Your task to perform on an android device: turn off sleep mode Image 0: 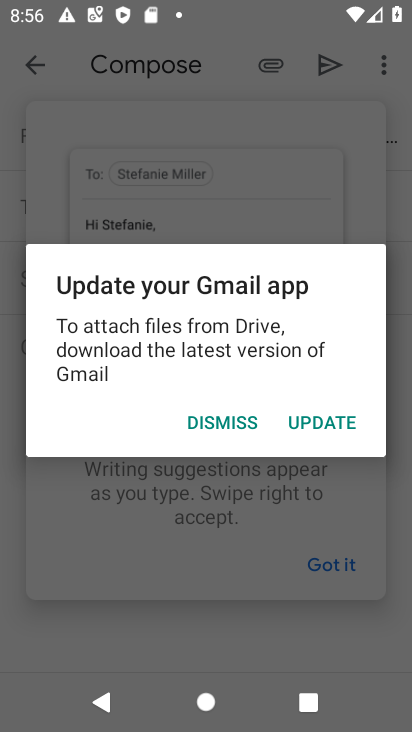
Step 0: press home button
Your task to perform on an android device: turn off sleep mode Image 1: 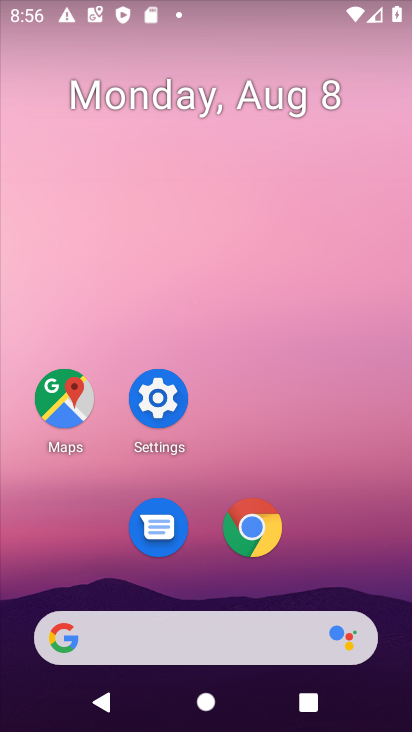
Step 1: drag from (289, 407) to (286, 239)
Your task to perform on an android device: turn off sleep mode Image 2: 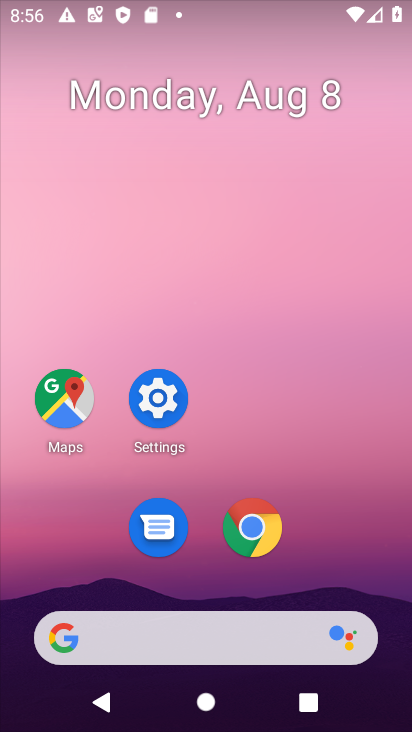
Step 2: drag from (307, 448) to (293, 113)
Your task to perform on an android device: turn off sleep mode Image 3: 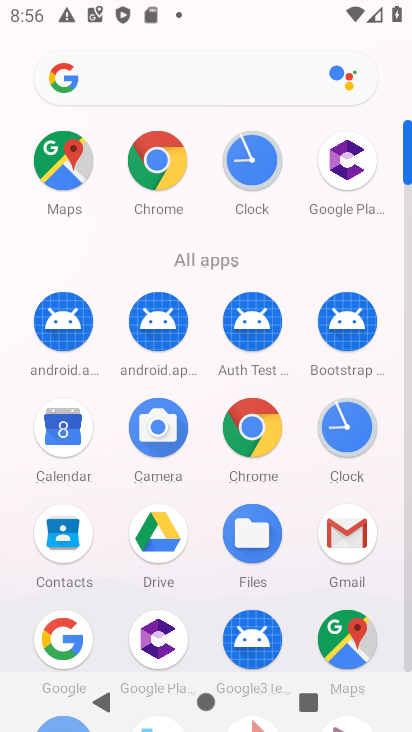
Step 3: drag from (299, 493) to (297, 154)
Your task to perform on an android device: turn off sleep mode Image 4: 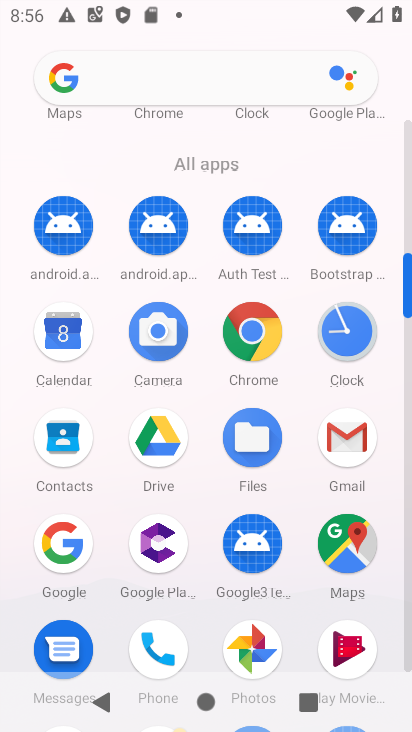
Step 4: drag from (181, 584) to (188, 228)
Your task to perform on an android device: turn off sleep mode Image 5: 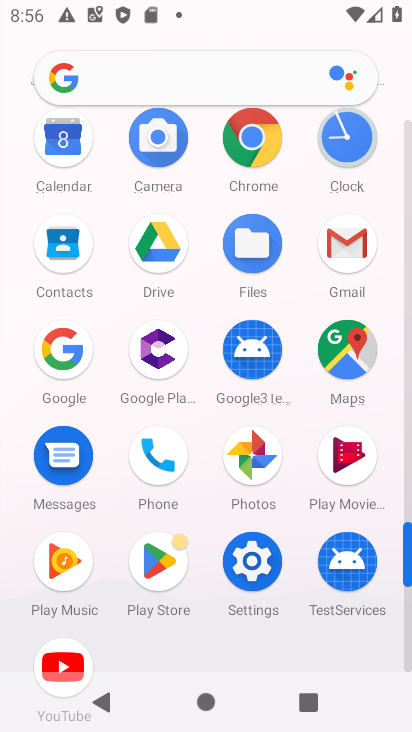
Step 5: click (261, 559)
Your task to perform on an android device: turn off sleep mode Image 6: 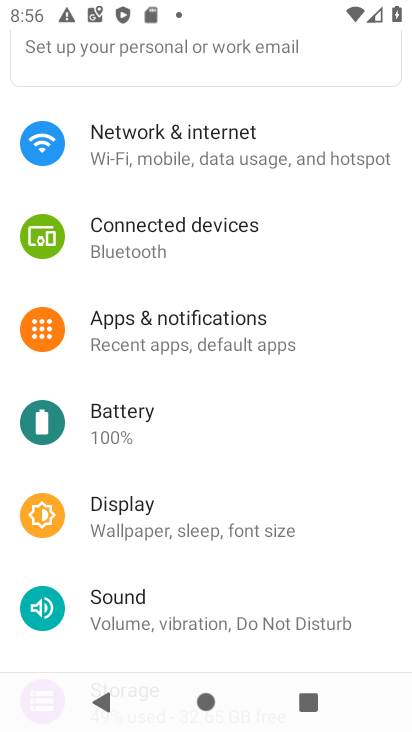
Step 6: task complete